Your task to perform on an android device: Go to Wikipedia Image 0: 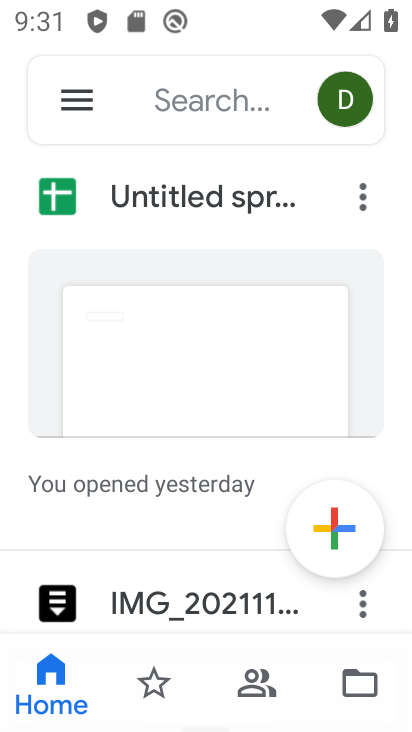
Step 0: press home button
Your task to perform on an android device: Go to Wikipedia Image 1: 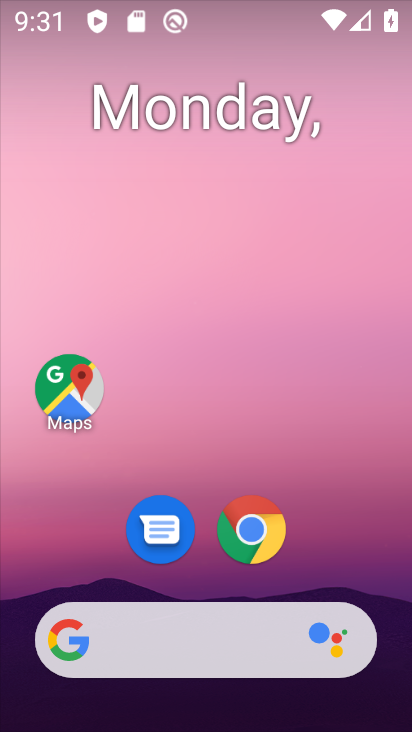
Step 1: click (261, 539)
Your task to perform on an android device: Go to Wikipedia Image 2: 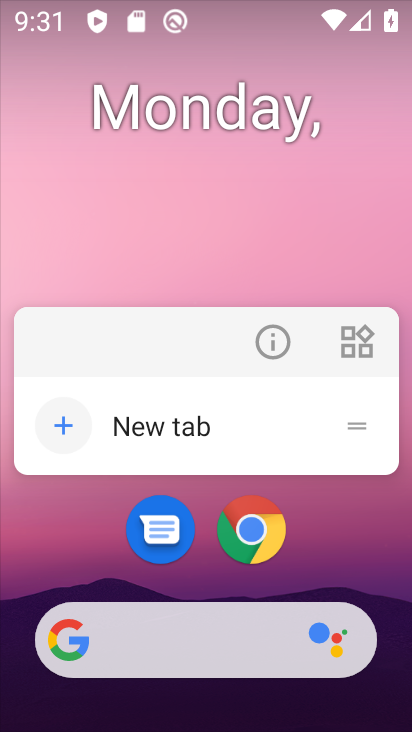
Step 2: click (253, 524)
Your task to perform on an android device: Go to Wikipedia Image 3: 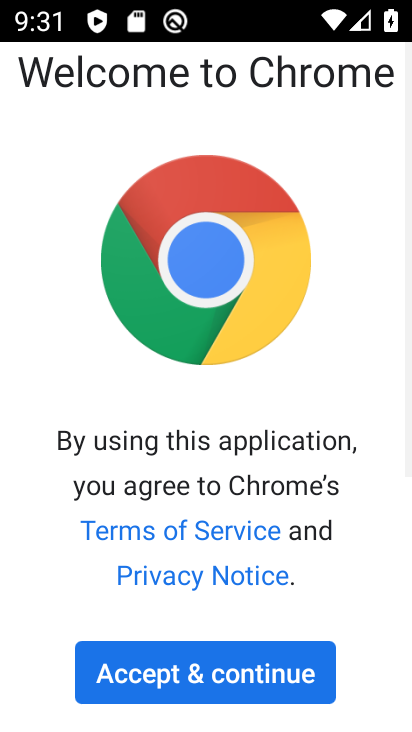
Step 3: click (196, 697)
Your task to perform on an android device: Go to Wikipedia Image 4: 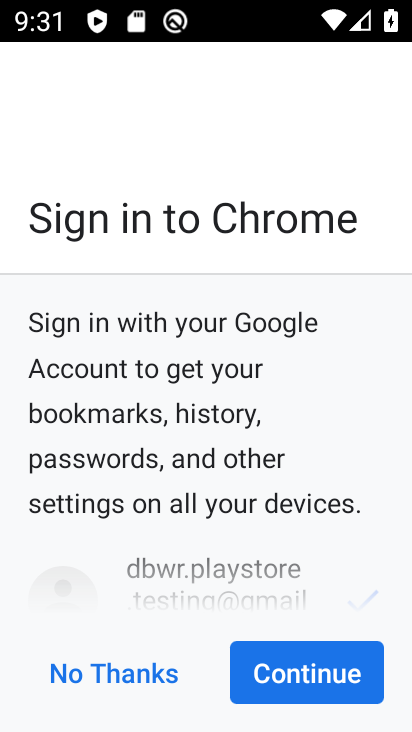
Step 4: click (325, 670)
Your task to perform on an android device: Go to Wikipedia Image 5: 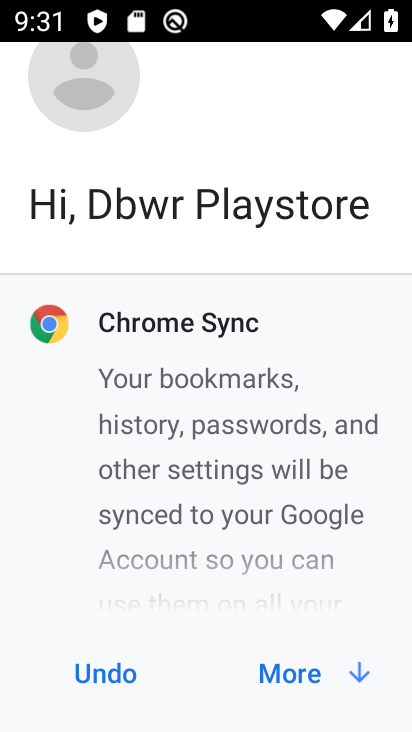
Step 5: click (293, 679)
Your task to perform on an android device: Go to Wikipedia Image 6: 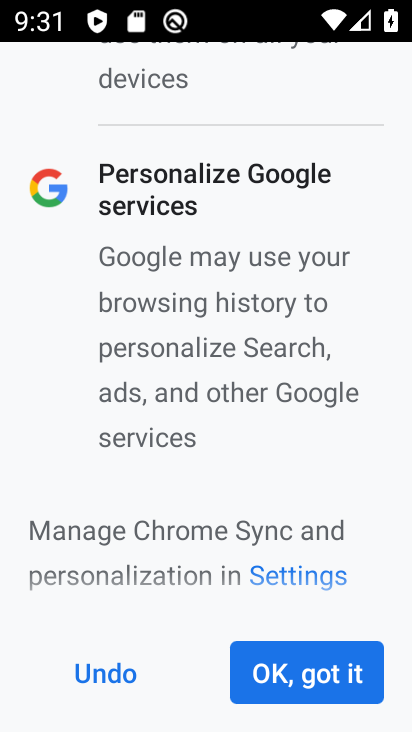
Step 6: click (293, 677)
Your task to perform on an android device: Go to Wikipedia Image 7: 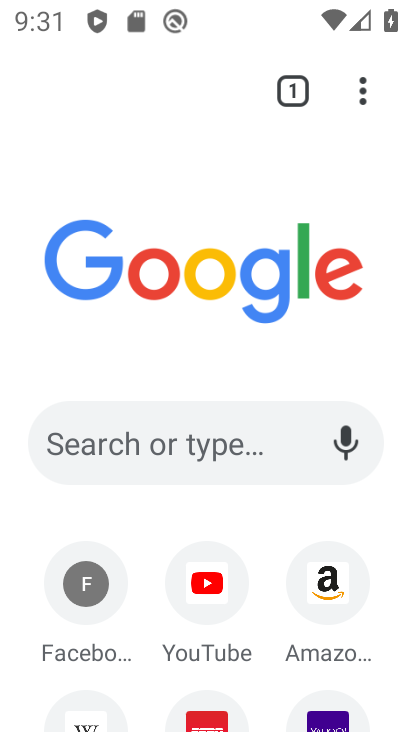
Step 7: drag from (233, 659) to (351, 367)
Your task to perform on an android device: Go to Wikipedia Image 8: 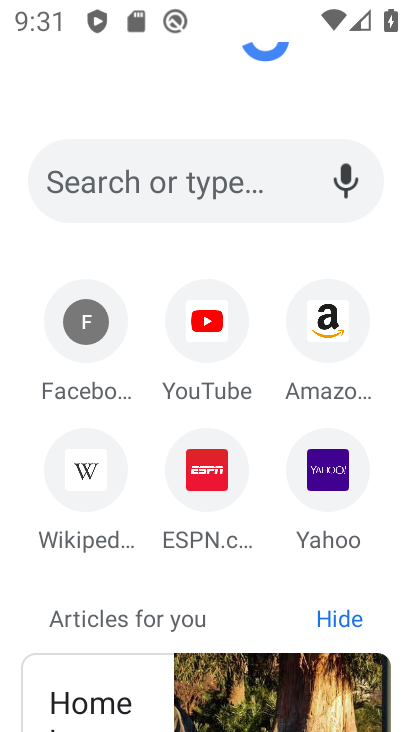
Step 8: click (93, 488)
Your task to perform on an android device: Go to Wikipedia Image 9: 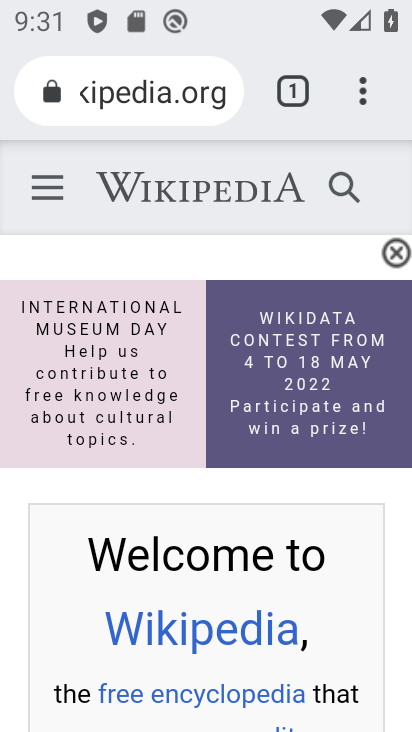
Step 9: drag from (238, 681) to (301, 393)
Your task to perform on an android device: Go to Wikipedia Image 10: 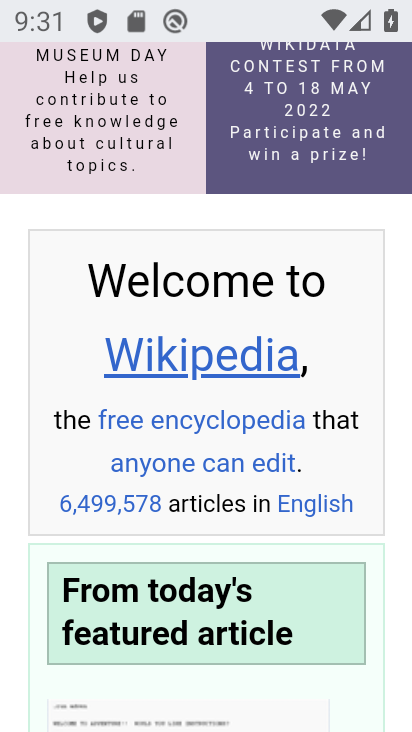
Step 10: click (300, 347)
Your task to perform on an android device: Go to Wikipedia Image 11: 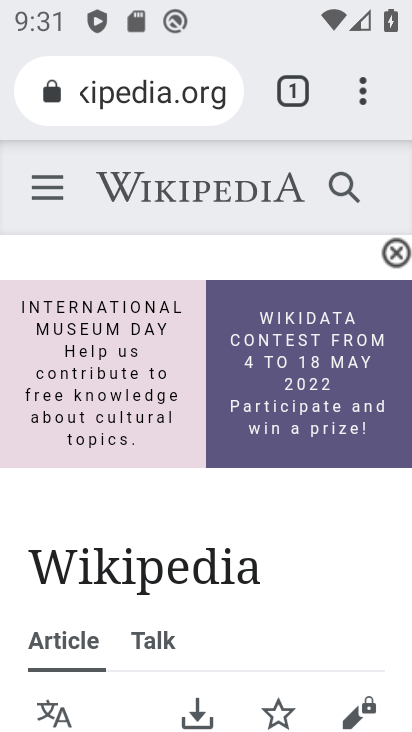
Step 11: task complete